Your task to perform on an android device: add a label to a message in the gmail app Image 0: 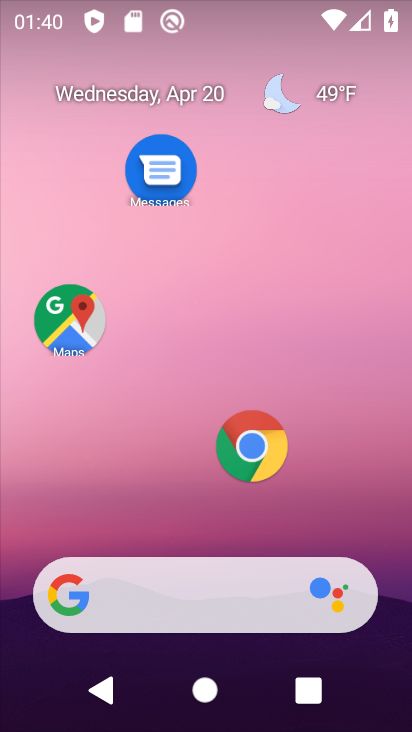
Step 0: drag from (219, 541) to (207, 38)
Your task to perform on an android device: add a label to a message in the gmail app Image 1: 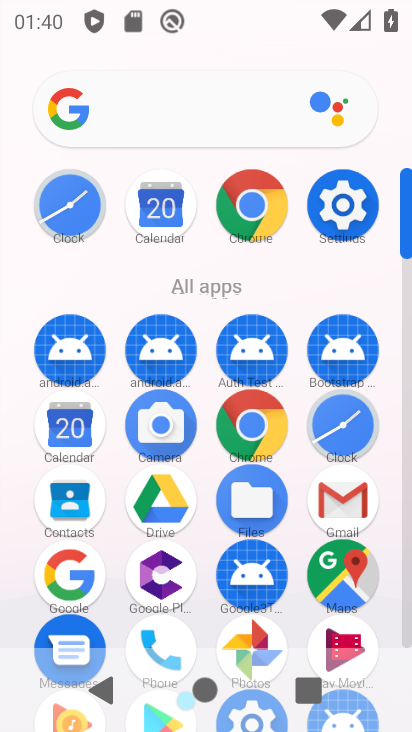
Step 1: click (351, 491)
Your task to perform on an android device: add a label to a message in the gmail app Image 2: 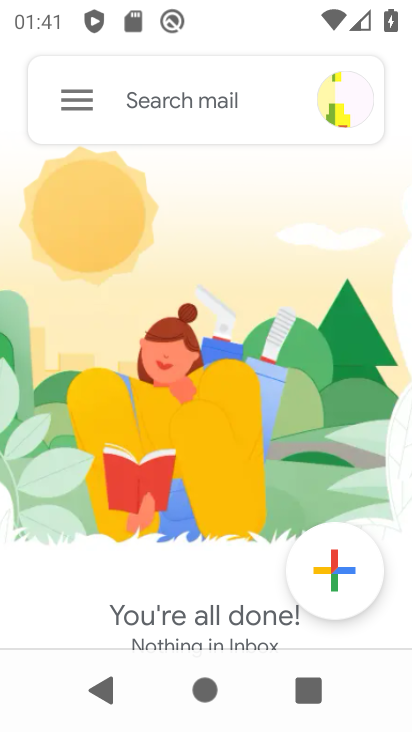
Step 2: task complete